Your task to perform on an android device: toggle priority inbox in the gmail app Image 0: 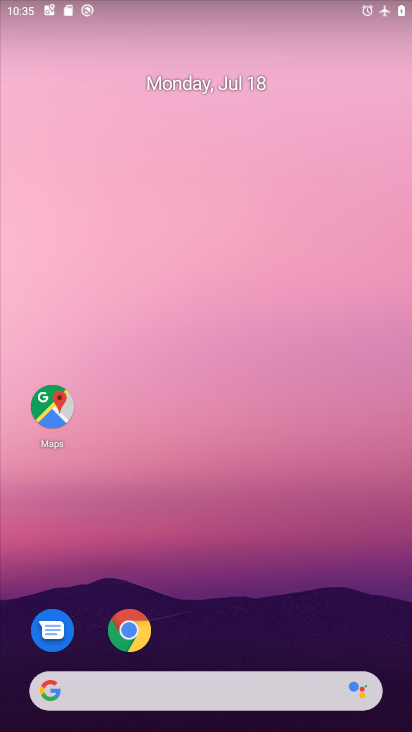
Step 0: drag from (191, 548) to (200, 188)
Your task to perform on an android device: toggle priority inbox in the gmail app Image 1: 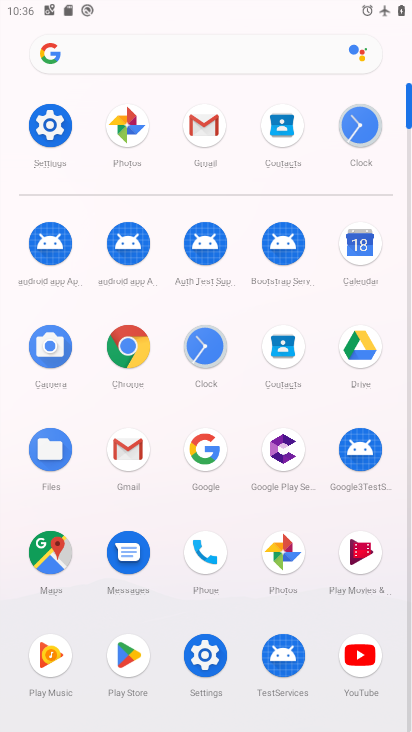
Step 1: click (214, 121)
Your task to perform on an android device: toggle priority inbox in the gmail app Image 2: 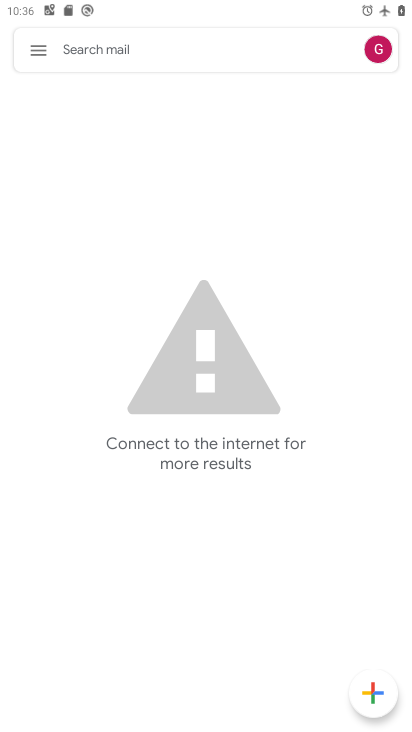
Step 2: click (47, 51)
Your task to perform on an android device: toggle priority inbox in the gmail app Image 3: 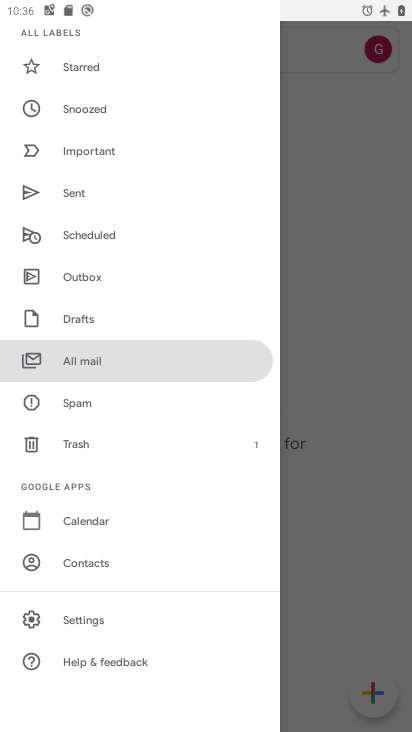
Step 3: click (105, 624)
Your task to perform on an android device: toggle priority inbox in the gmail app Image 4: 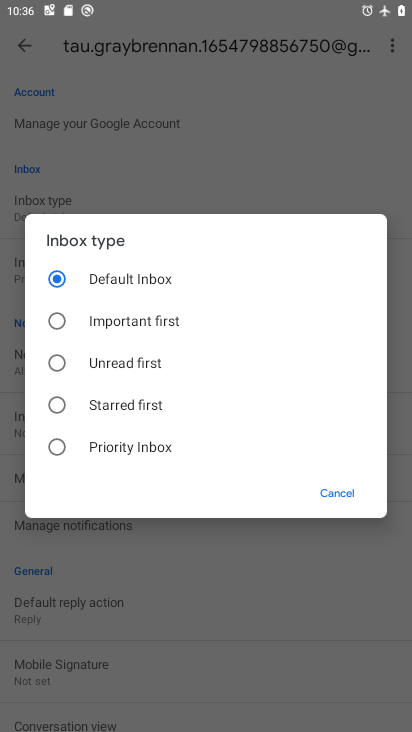
Step 4: click (132, 448)
Your task to perform on an android device: toggle priority inbox in the gmail app Image 5: 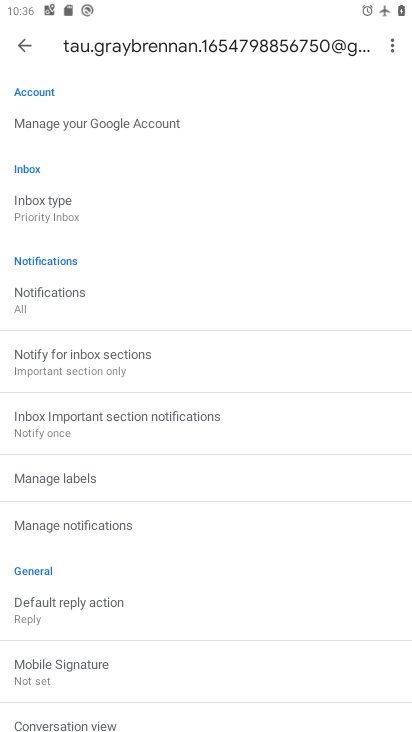
Step 5: click (71, 215)
Your task to perform on an android device: toggle priority inbox in the gmail app Image 6: 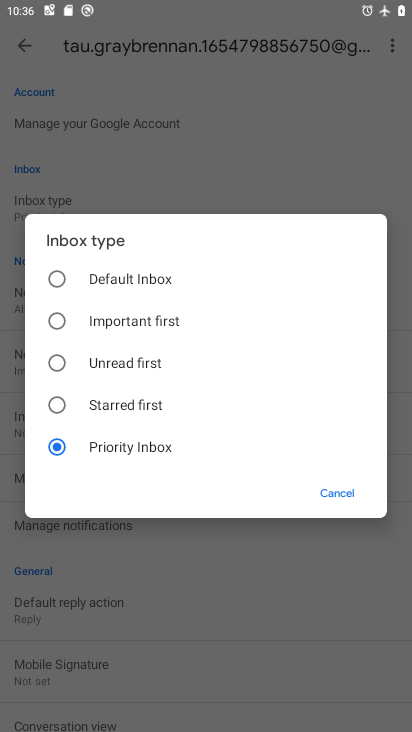
Step 6: click (118, 275)
Your task to perform on an android device: toggle priority inbox in the gmail app Image 7: 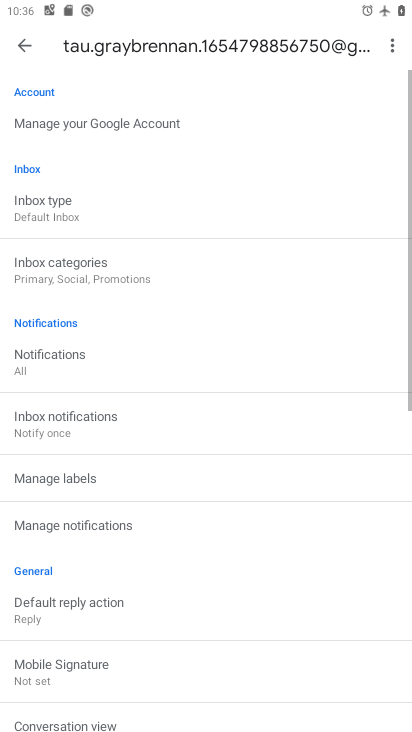
Step 7: task complete